Your task to perform on an android device: turn smart compose on in the gmail app Image 0: 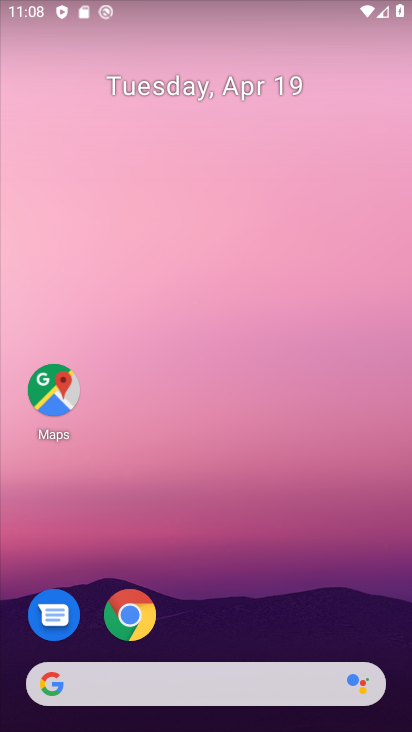
Step 0: drag from (171, 593) to (180, 226)
Your task to perform on an android device: turn smart compose on in the gmail app Image 1: 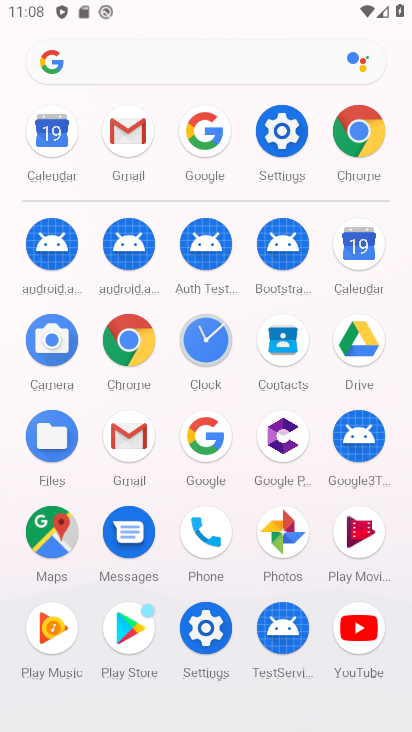
Step 1: click (137, 136)
Your task to perform on an android device: turn smart compose on in the gmail app Image 2: 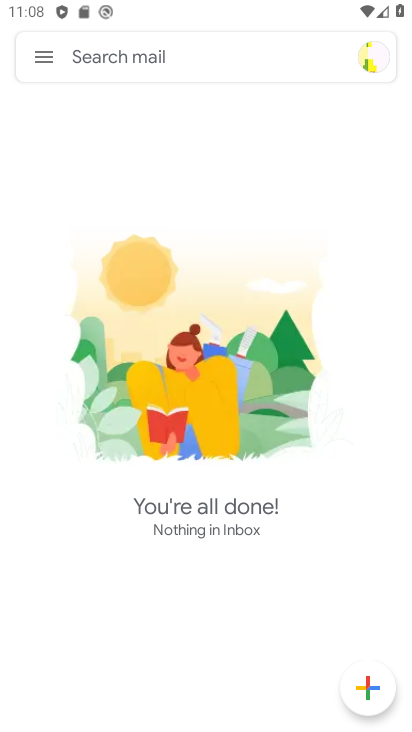
Step 2: click (48, 51)
Your task to perform on an android device: turn smart compose on in the gmail app Image 3: 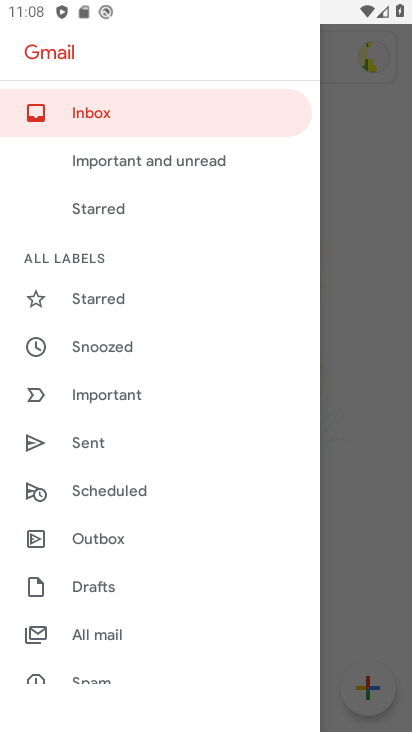
Step 3: drag from (98, 674) to (113, 264)
Your task to perform on an android device: turn smart compose on in the gmail app Image 4: 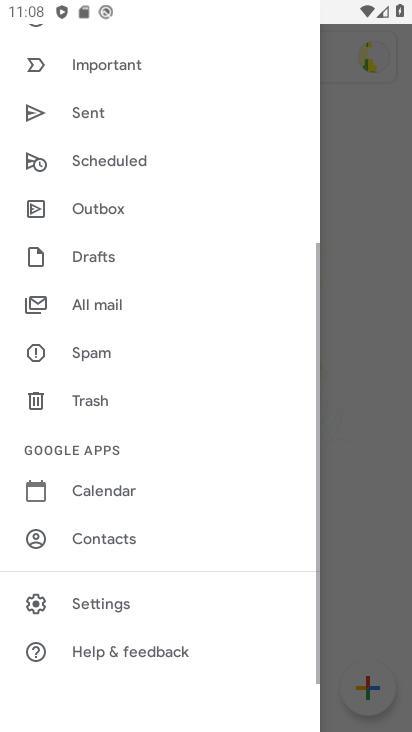
Step 4: click (111, 601)
Your task to perform on an android device: turn smart compose on in the gmail app Image 5: 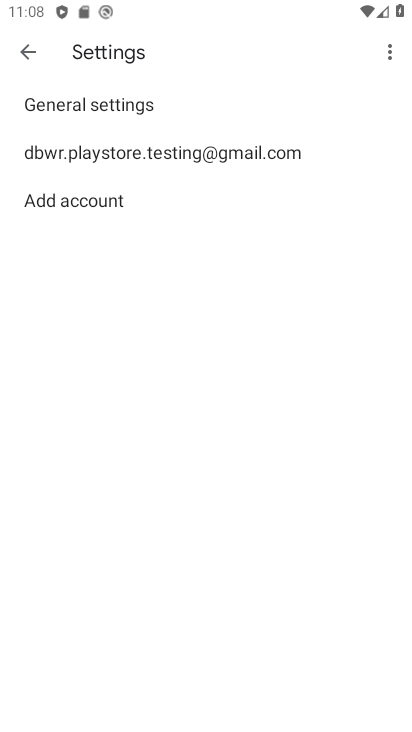
Step 5: click (76, 153)
Your task to perform on an android device: turn smart compose on in the gmail app Image 6: 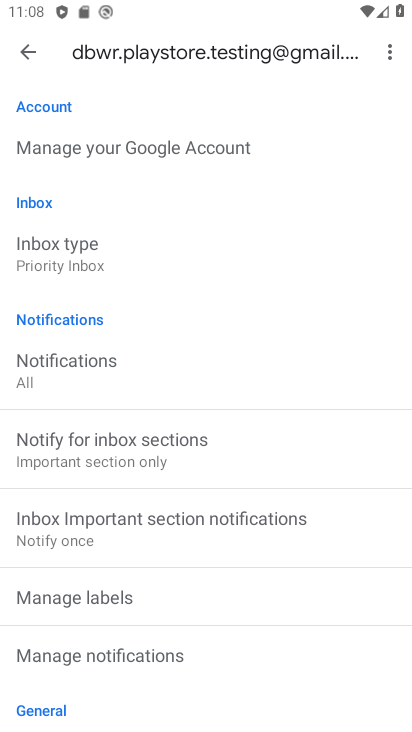
Step 6: task complete